Your task to perform on an android device: Go to Amazon Image 0: 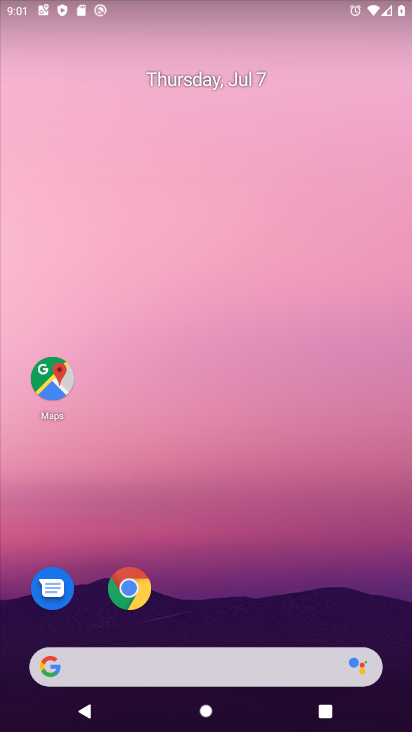
Step 0: click (125, 582)
Your task to perform on an android device: Go to Amazon Image 1: 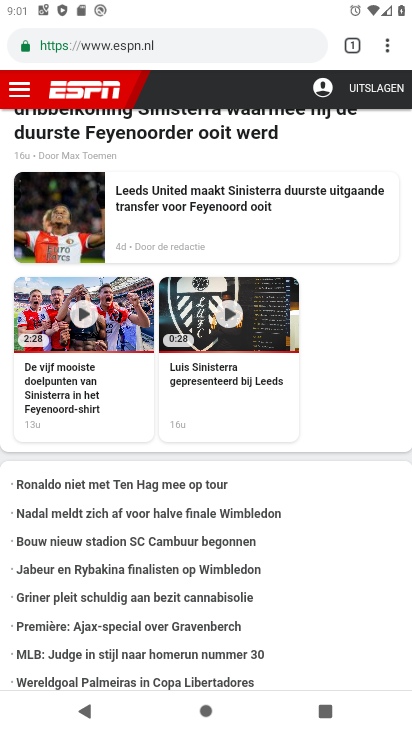
Step 1: drag from (242, 126) to (251, 452)
Your task to perform on an android device: Go to Amazon Image 2: 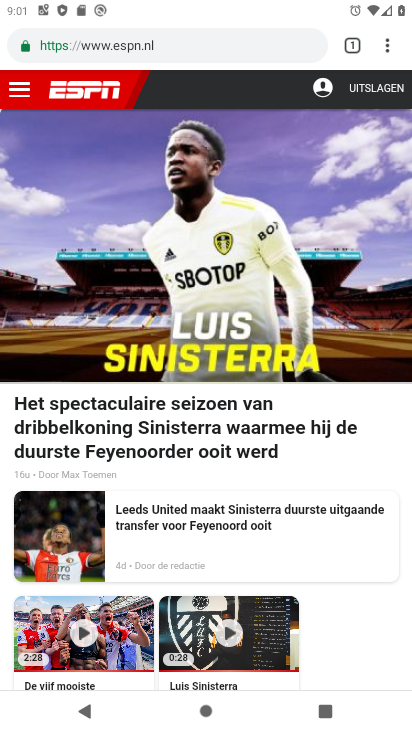
Step 2: click (353, 42)
Your task to perform on an android device: Go to Amazon Image 3: 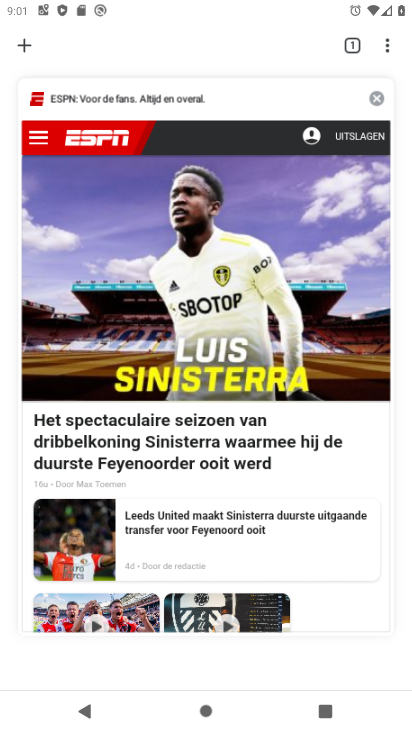
Step 3: click (373, 96)
Your task to perform on an android device: Go to Amazon Image 4: 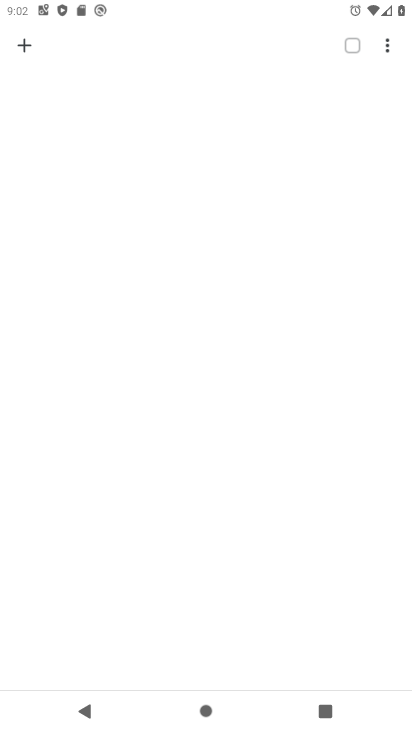
Step 4: click (19, 45)
Your task to perform on an android device: Go to Amazon Image 5: 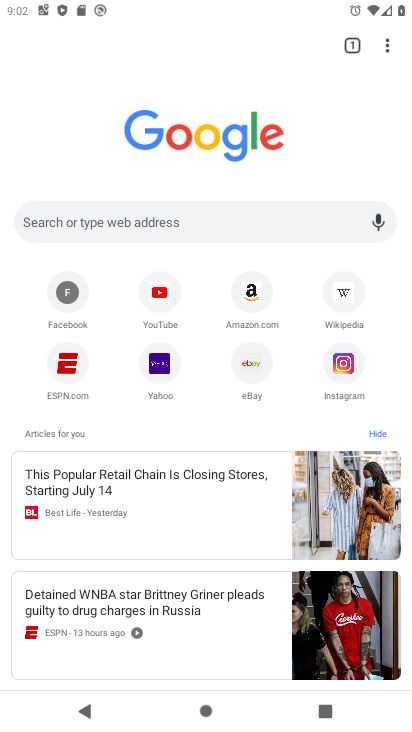
Step 5: click (243, 293)
Your task to perform on an android device: Go to Amazon Image 6: 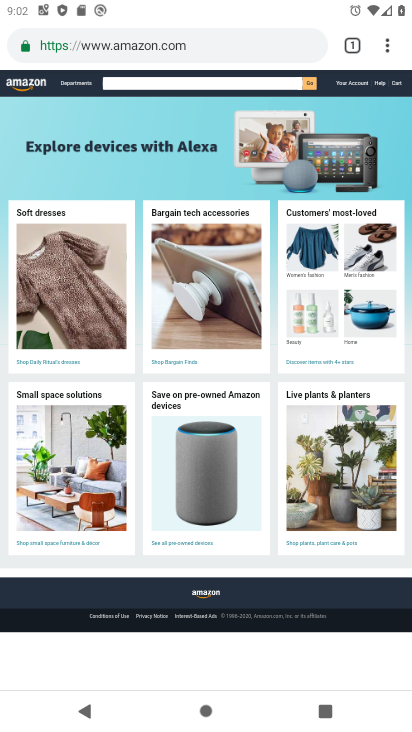
Step 6: task complete